Your task to perform on an android device: remove spam from my inbox in the gmail app Image 0: 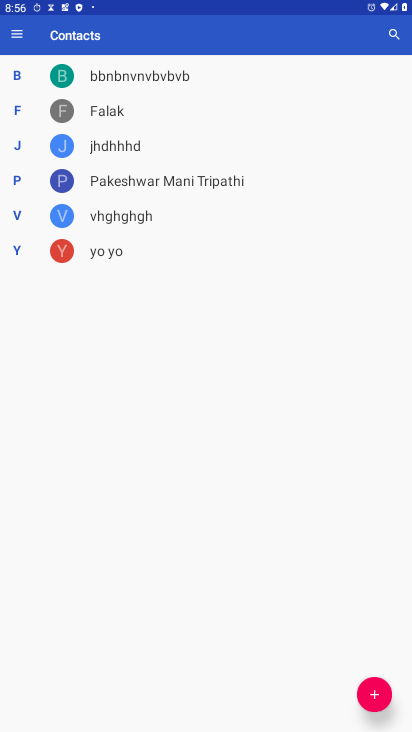
Step 0: drag from (252, 552) to (271, 299)
Your task to perform on an android device: remove spam from my inbox in the gmail app Image 1: 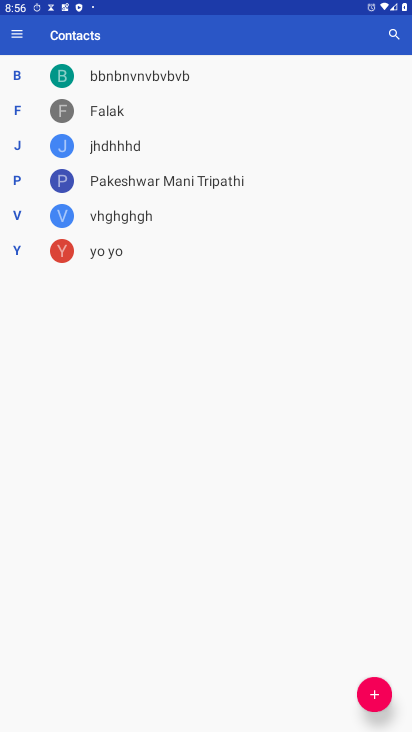
Step 1: press home button
Your task to perform on an android device: remove spam from my inbox in the gmail app Image 2: 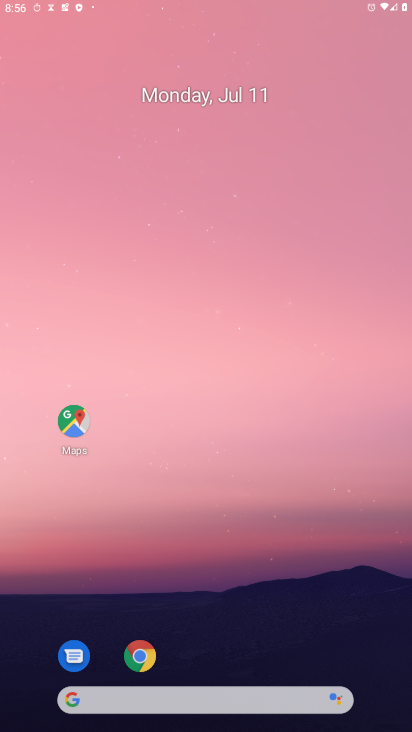
Step 2: drag from (277, 580) to (318, 220)
Your task to perform on an android device: remove spam from my inbox in the gmail app Image 3: 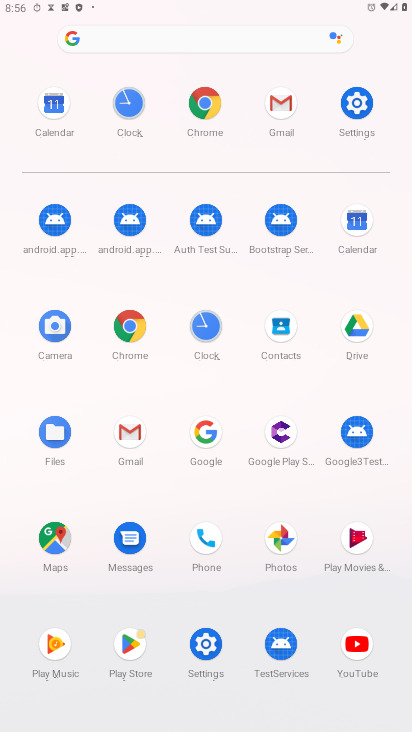
Step 3: drag from (245, 631) to (201, 124)
Your task to perform on an android device: remove spam from my inbox in the gmail app Image 4: 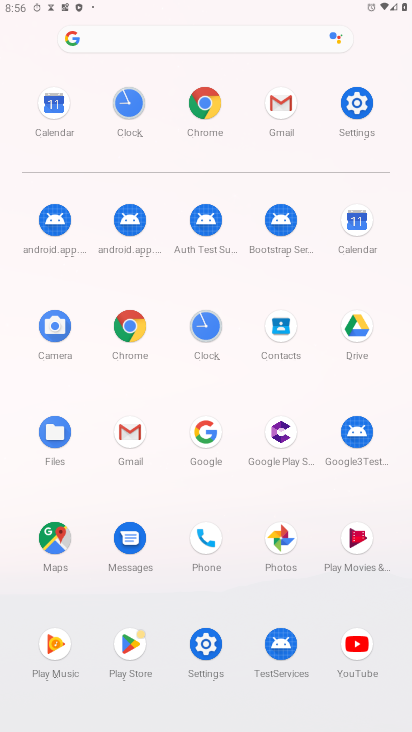
Step 4: click (142, 436)
Your task to perform on an android device: remove spam from my inbox in the gmail app Image 5: 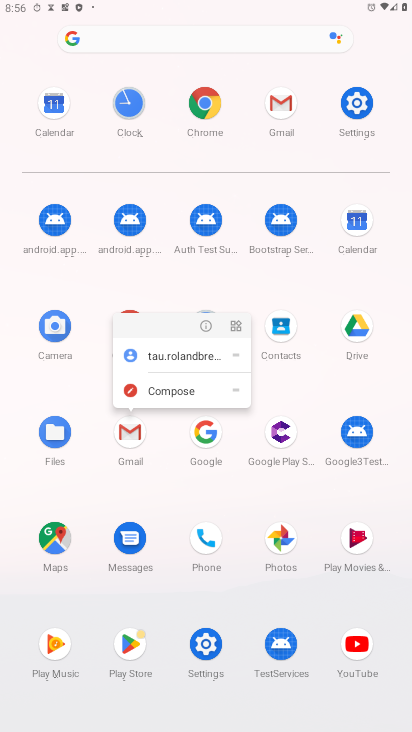
Step 5: click (195, 334)
Your task to perform on an android device: remove spam from my inbox in the gmail app Image 6: 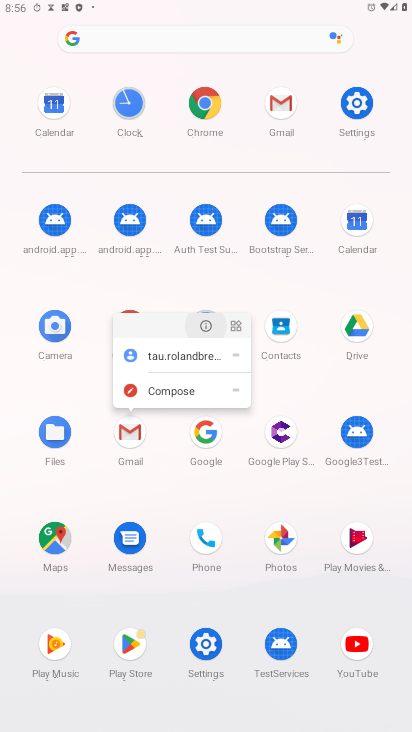
Step 6: click (201, 331)
Your task to perform on an android device: remove spam from my inbox in the gmail app Image 7: 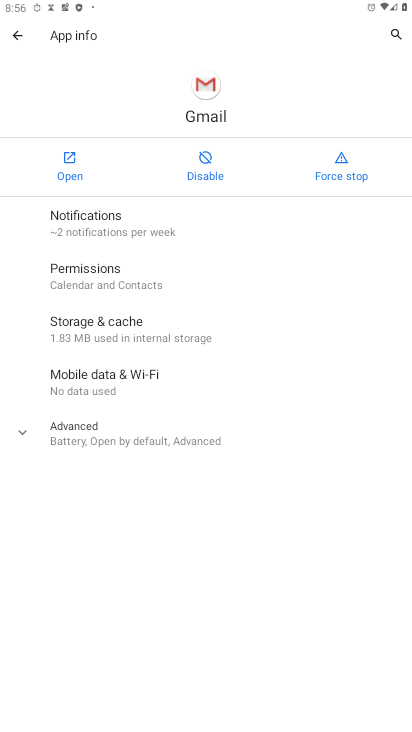
Step 7: click (70, 165)
Your task to perform on an android device: remove spam from my inbox in the gmail app Image 8: 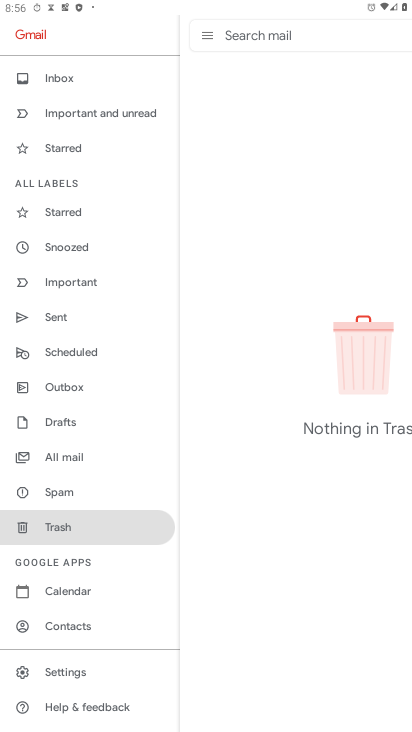
Step 8: click (77, 494)
Your task to perform on an android device: remove spam from my inbox in the gmail app Image 9: 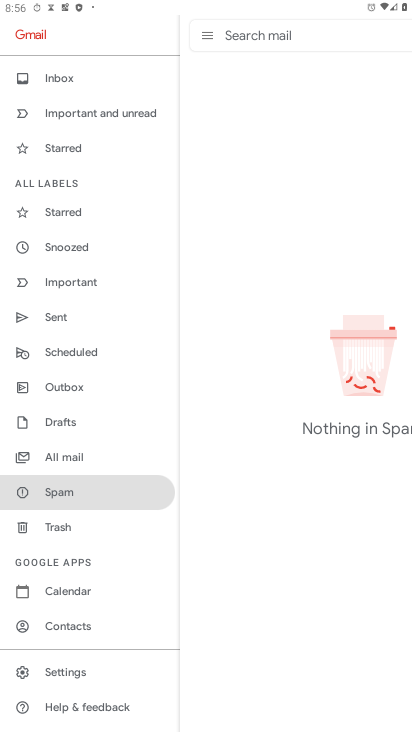
Step 9: task complete